Your task to perform on an android device: turn on data saver in the chrome app Image 0: 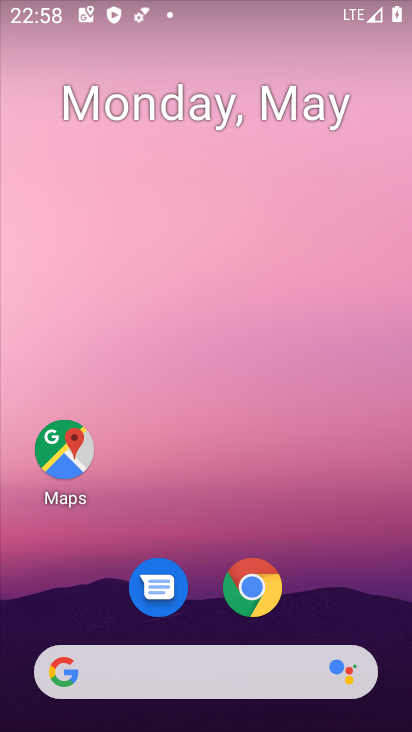
Step 0: click (262, 596)
Your task to perform on an android device: turn on data saver in the chrome app Image 1: 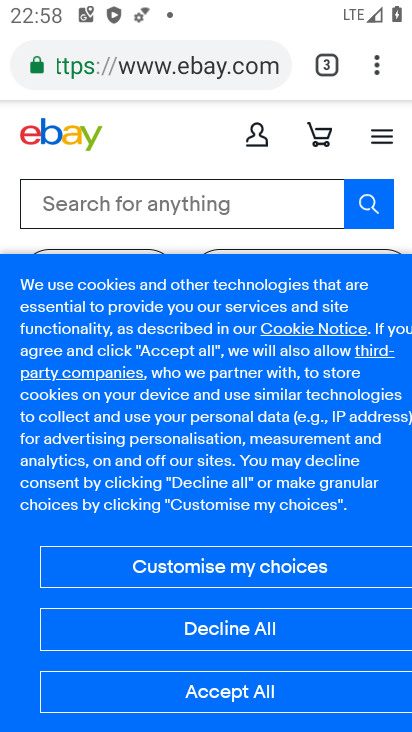
Step 1: click (375, 69)
Your task to perform on an android device: turn on data saver in the chrome app Image 2: 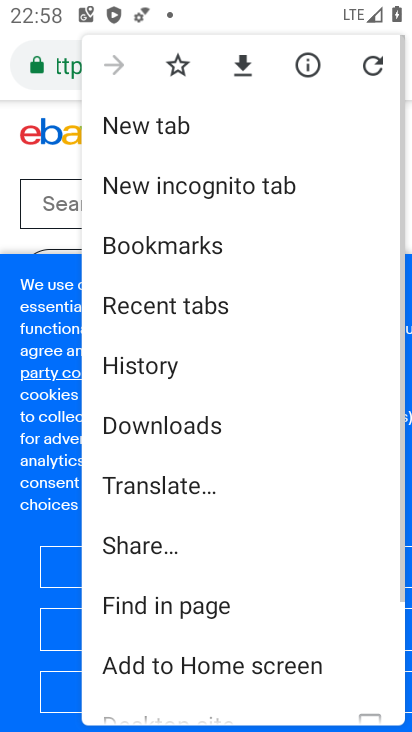
Step 2: drag from (215, 634) to (198, 100)
Your task to perform on an android device: turn on data saver in the chrome app Image 3: 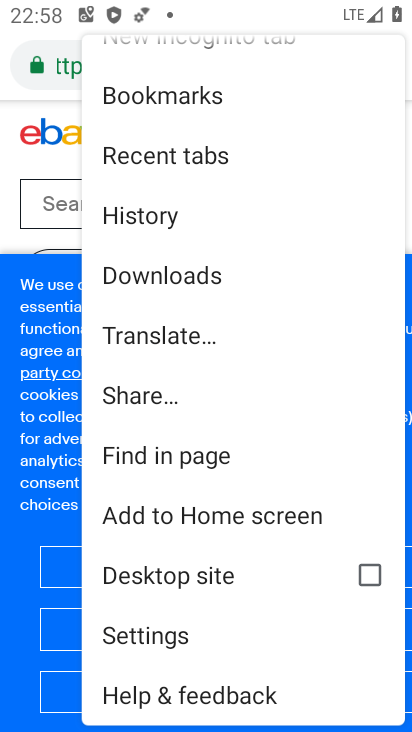
Step 3: click (158, 622)
Your task to perform on an android device: turn on data saver in the chrome app Image 4: 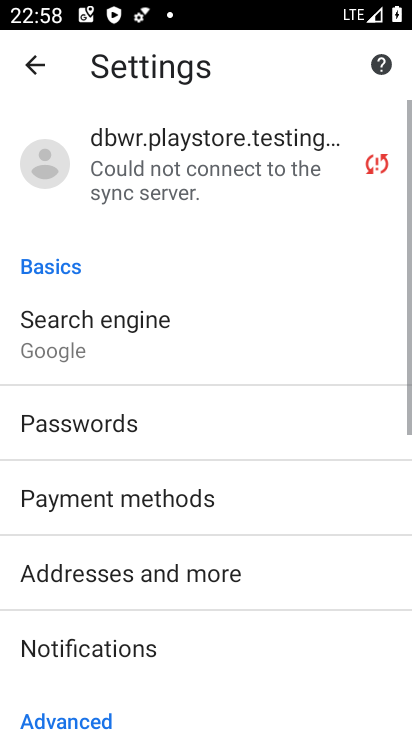
Step 4: drag from (165, 615) to (171, 112)
Your task to perform on an android device: turn on data saver in the chrome app Image 5: 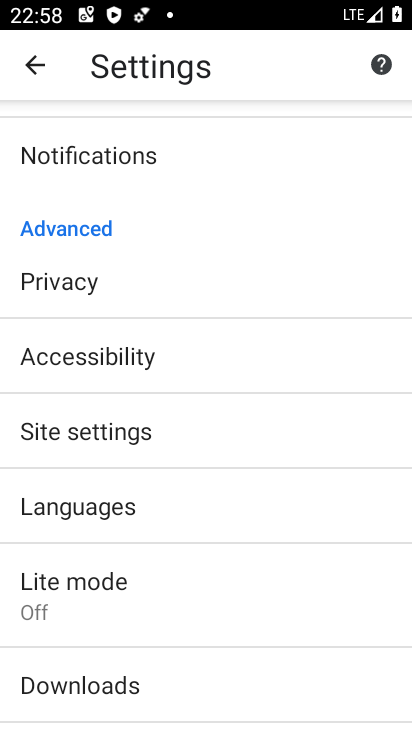
Step 5: click (69, 598)
Your task to perform on an android device: turn on data saver in the chrome app Image 6: 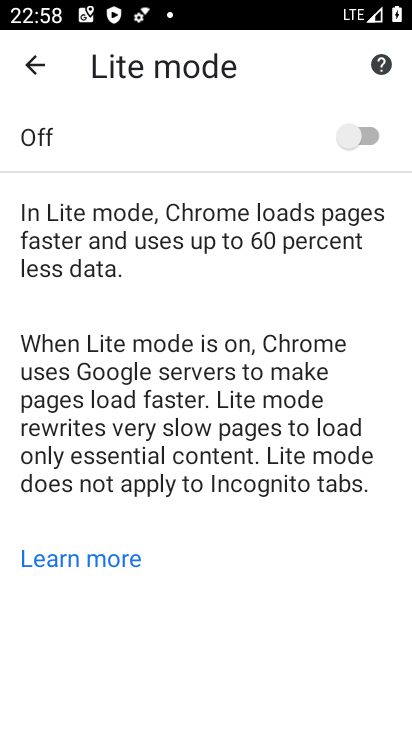
Step 6: click (359, 125)
Your task to perform on an android device: turn on data saver in the chrome app Image 7: 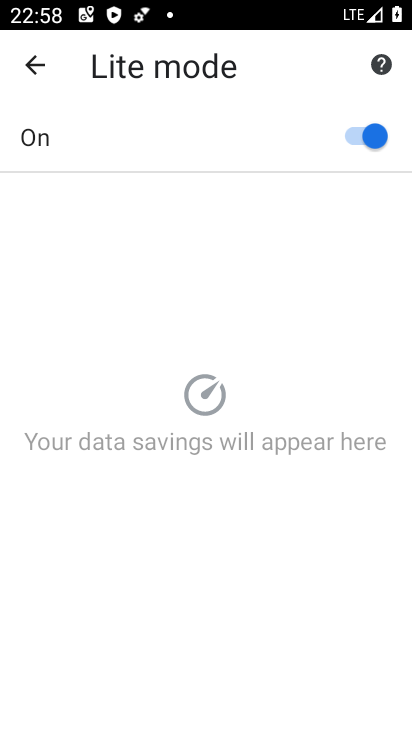
Step 7: task complete